Your task to perform on an android device: change alarm snooze length Image 0: 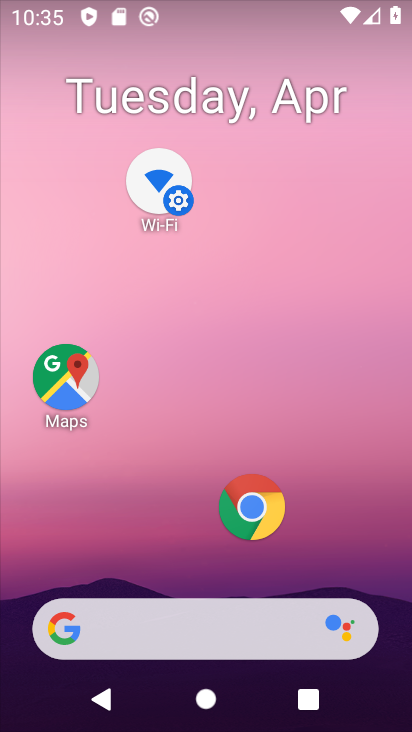
Step 0: drag from (42, 730) to (310, 172)
Your task to perform on an android device: change alarm snooze length Image 1: 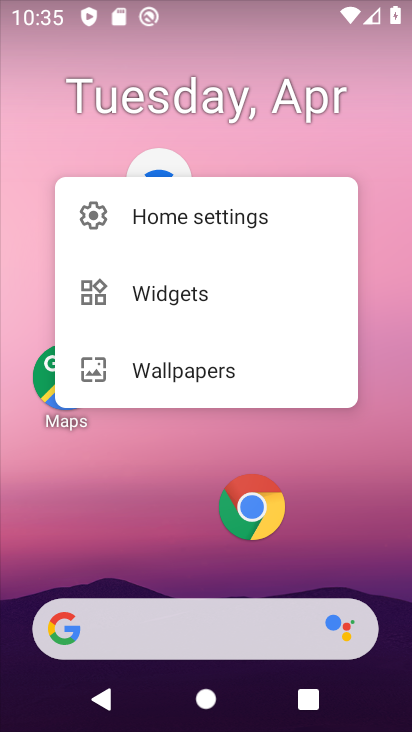
Step 1: drag from (52, 706) to (346, 239)
Your task to perform on an android device: change alarm snooze length Image 2: 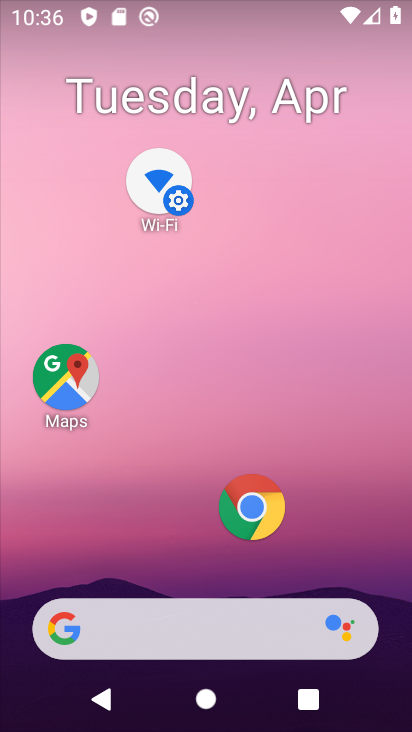
Step 2: drag from (63, 592) to (218, 426)
Your task to perform on an android device: change alarm snooze length Image 3: 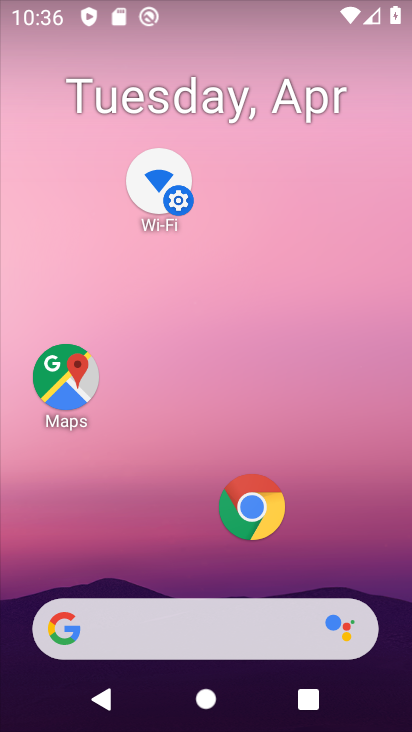
Step 3: drag from (63, 678) to (401, 421)
Your task to perform on an android device: change alarm snooze length Image 4: 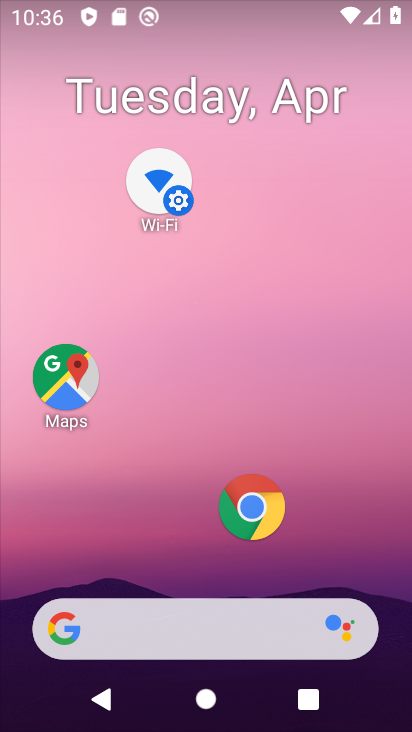
Step 4: drag from (62, 657) to (336, 222)
Your task to perform on an android device: change alarm snooze length Image 5: 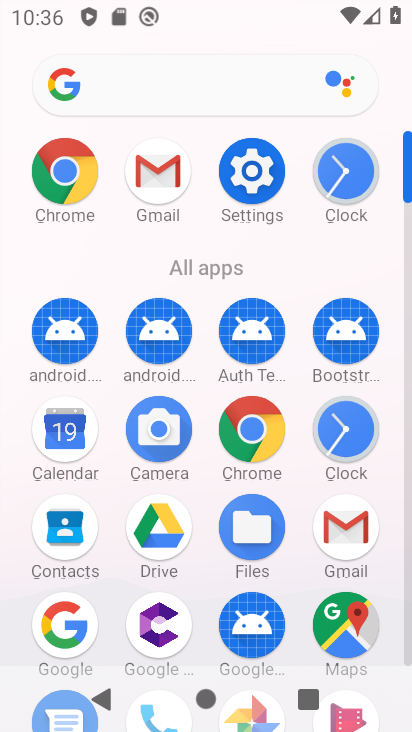
Step 5: click (362, 435)
Your task to perform on an android device: change alarm snooze length Image 6: 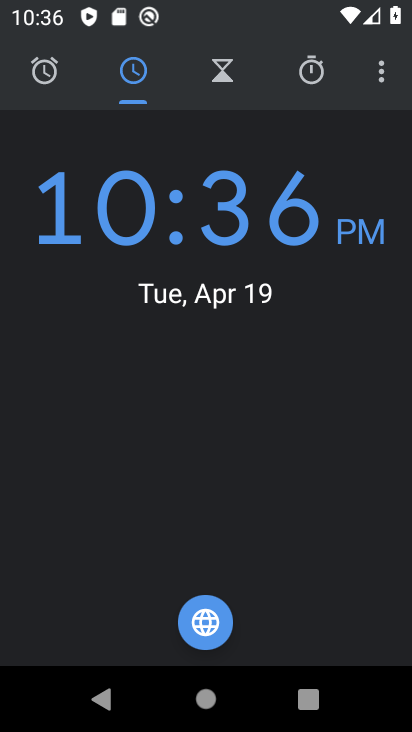
Step 6: click (382, 72)
Your task to perform on an android device: change alarm snooze length Image 7: 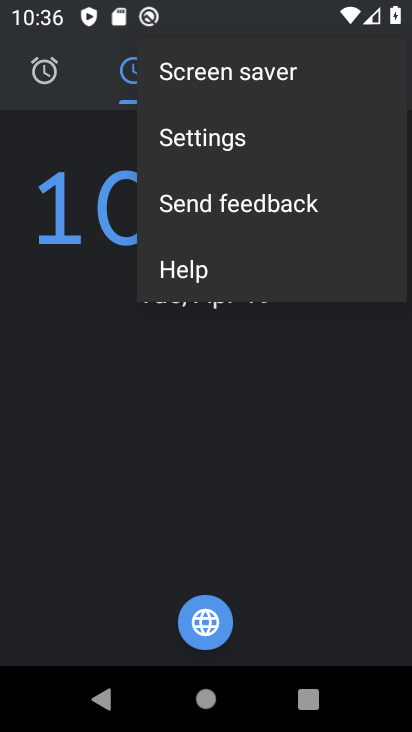
Step 7: click (228, 144)
Your task to perform on an android device: change alarm snooze length Image 8: 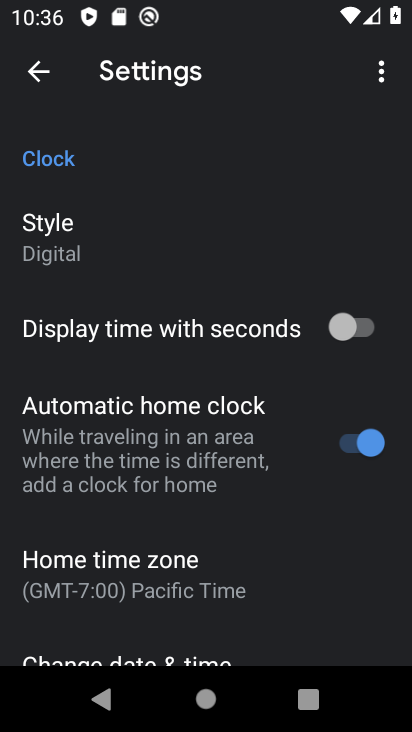
Step 8: drag from (159, 560) to (259, 224)
Your task to perform on an android device: change alarm snooze length Image 9: 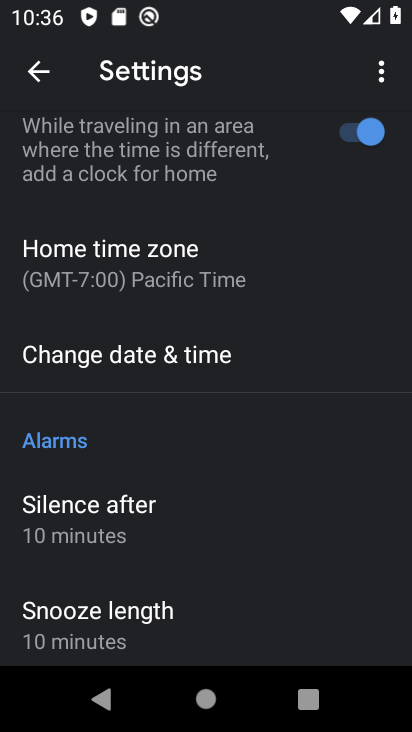
Step 9: click (126, 628)
Your task to perform on an android device: change alarm snooze length Image 10: 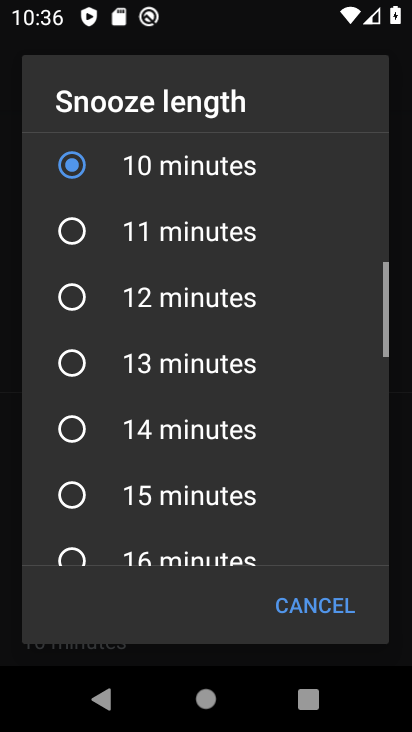
Step 10: click (95, 239)
Your task to perform on an android device: change alarm snooze length Image 11: 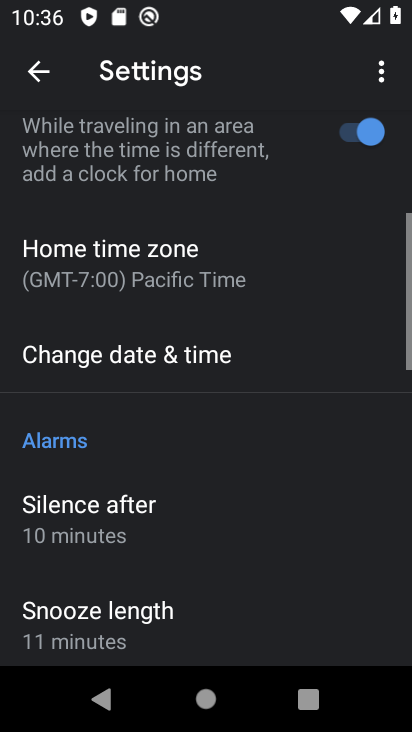
Step 11: task complete